Your task to perform on an android device: Go to Google maps Image 0: 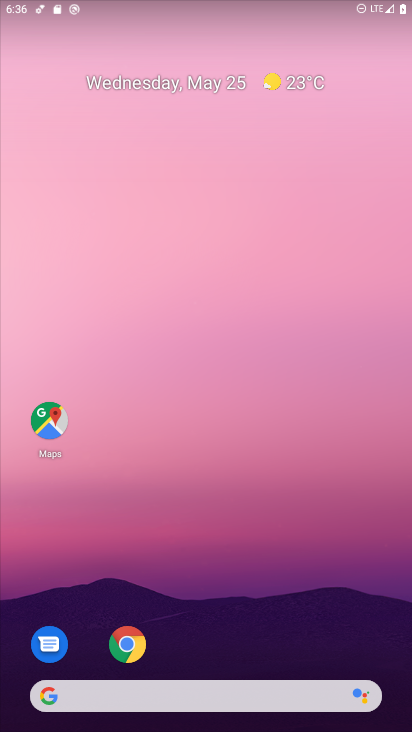
Step 0: drag from (330, 619) to (175, 95)
Your task to perform on an android device: Go to Google maps Image 1: 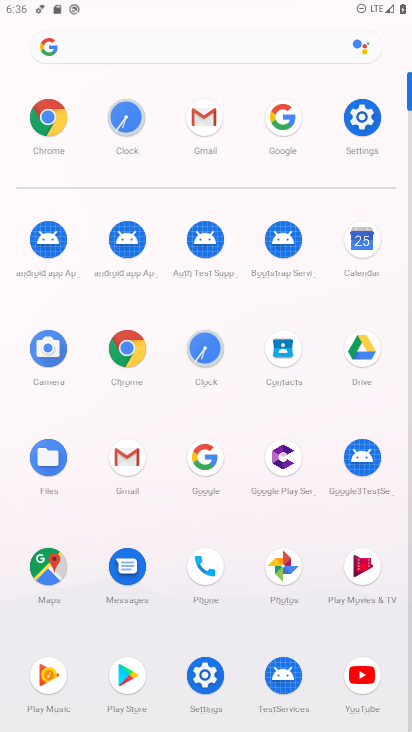
Step 1: click (33, 564)
Your task to perform on an android device: Go to Google maps Image 2: 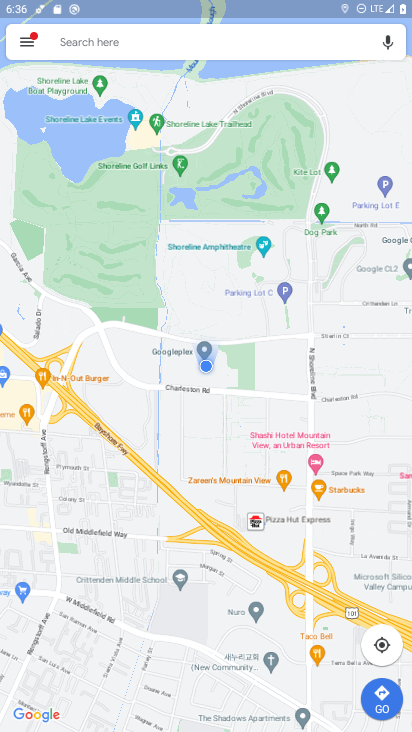
Step 2: task complete